Your task to perform on an android device: Search for seafood restaurants on Google Maps Image 0: 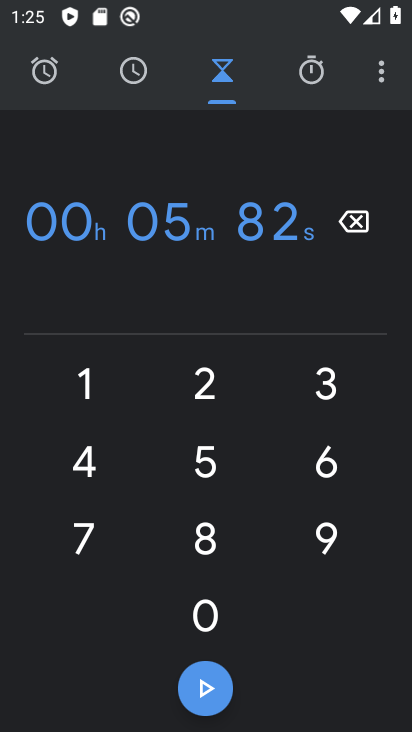
Step 0: press home button
Your task to perform on an android device: Search for seafood restaurants on Google Maps Image 1: 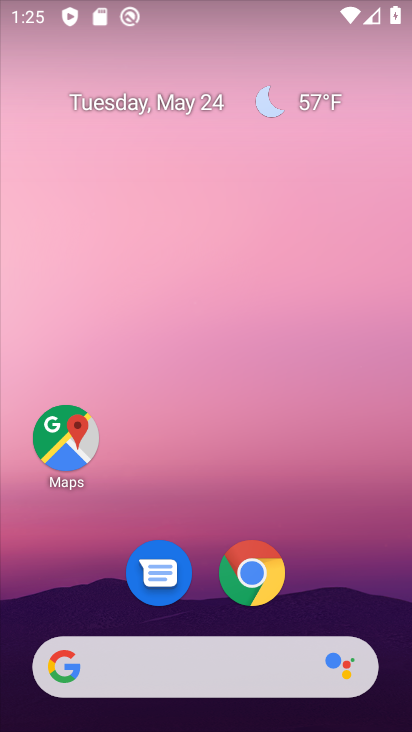
Step 1: click (71, 433)
Your task to perform on an android device: Search for seafood restaurants on Google Maps Image 2: 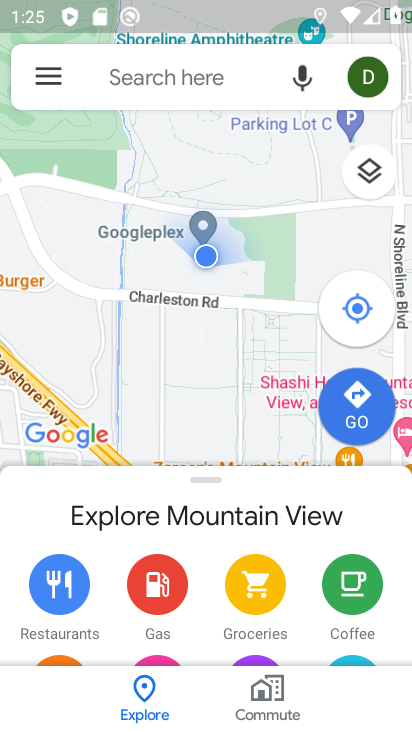
Step 2: click (149, 76)
Your task to perform on an android device: Search for seafood restaurants on Google Maps Image 3: 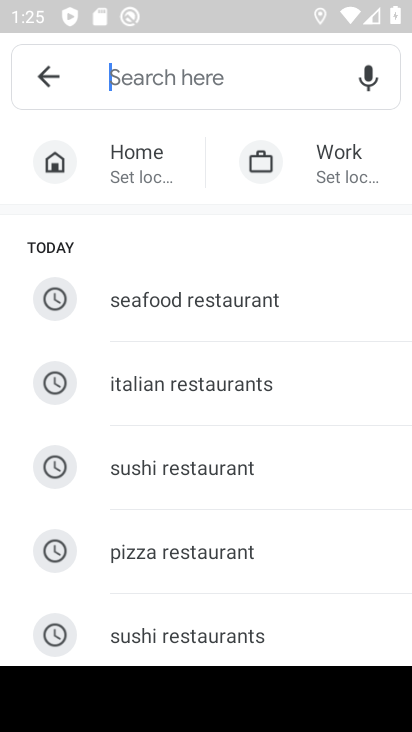
Step 3: click (224, 308)
Your task to perform on an android device: Search for seafood restaurants on Google Maps Image 4: 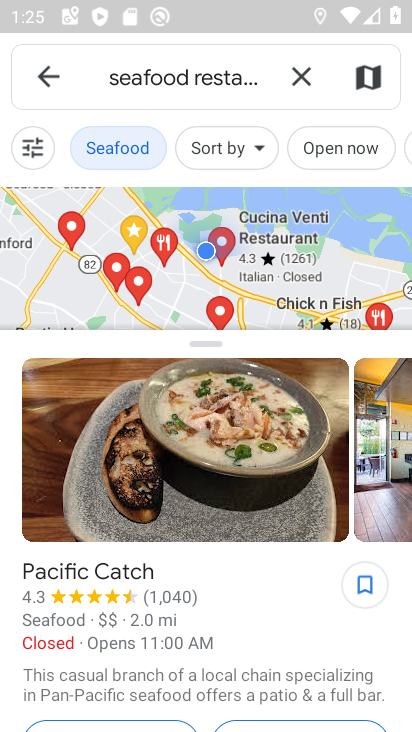
Step 4: task complete